Your task to perform on an android device: Open display settings Image 0: 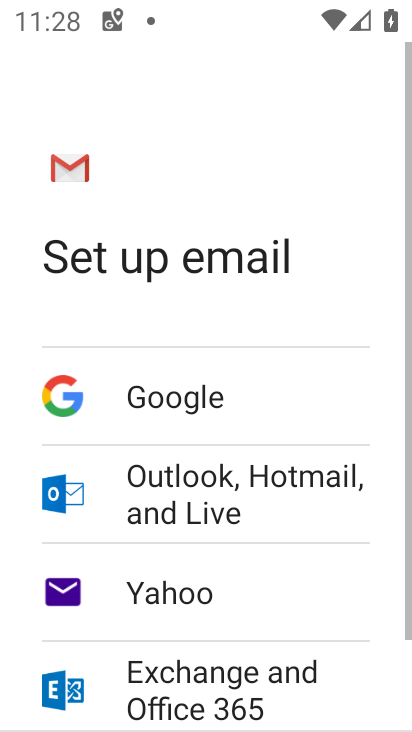
Step 0: press home button
Your task to perform on an android device: Open display settings Image 1: 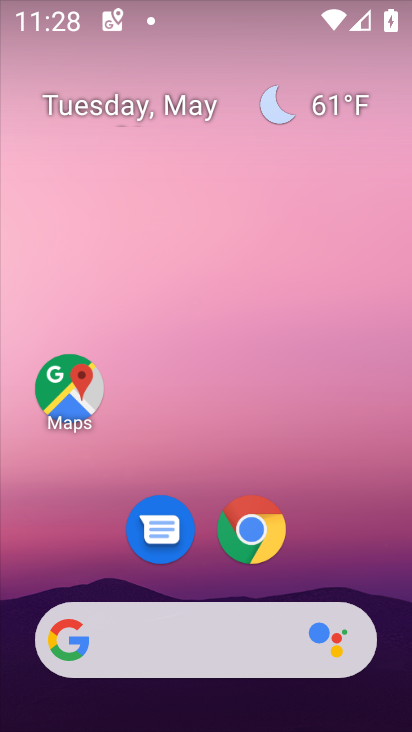
Step 1: drag from (327, 518) to (115, 188)
Your task to perform on an android device: Open display settings Image 2: 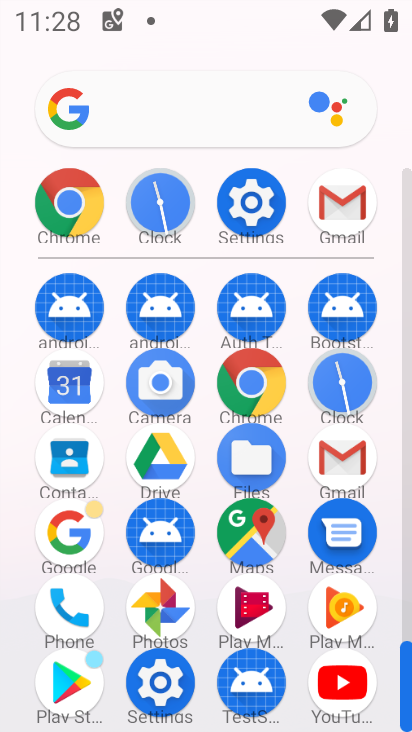
Step 2: click (261, 203)
Your task to perform on an android device: Open display settings Image 3: 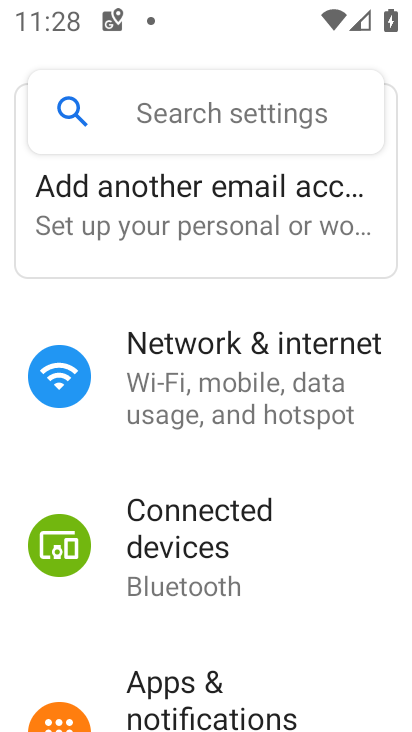
Step 3: drag from (268, 587) to (209, 86)
Your task to perform on an android device: Open display settings Image 4: 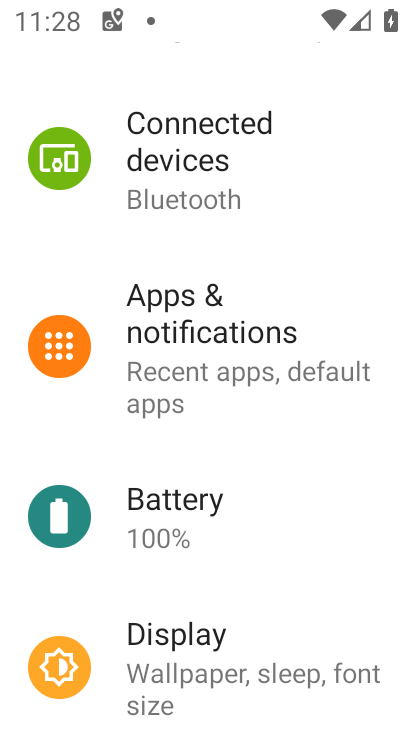
Step 4: click (181, 680)
Your task to perform on an android device: Open display settings Image 5: 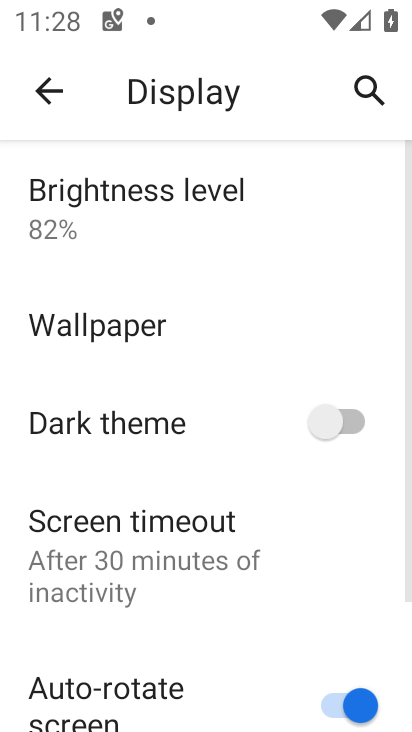
Step 5: drag from (181, 680) to (192, 339)
Your task to perform on an android device: Open display settings Image 6: 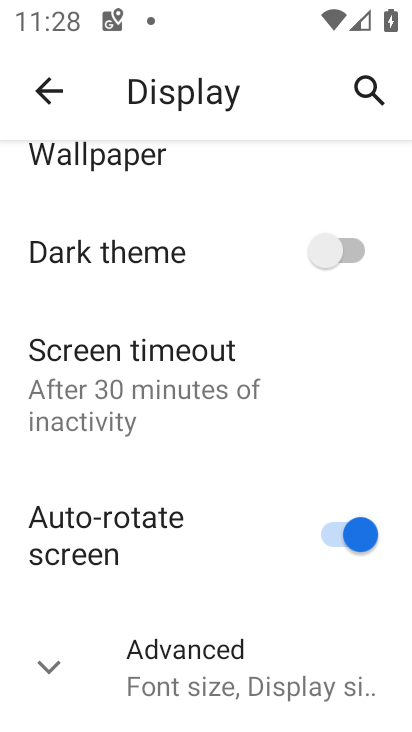
Step 6: click (214, 660)
Your task to perform on an android device: Open display settings Image 7: 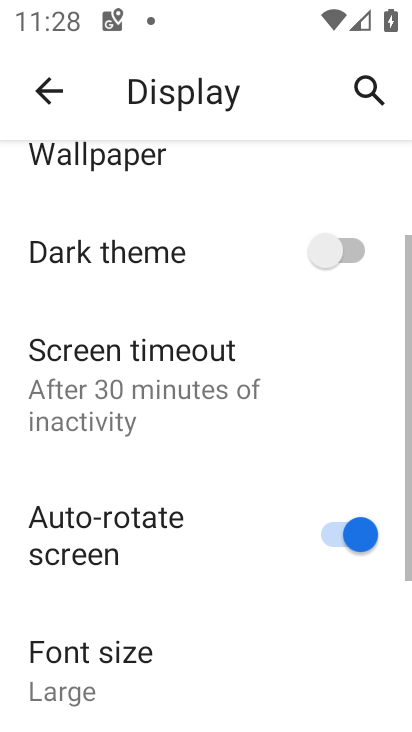
Step 7: task complete